Your task to perform on an android device: turn off priority inbox in the gmail app Image 0: 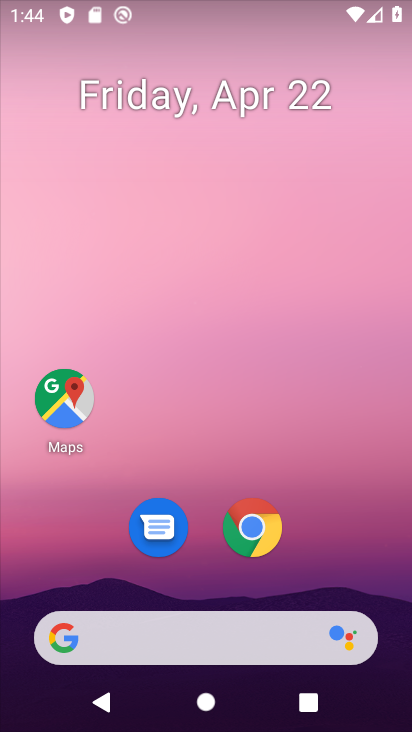
Step 0: drag from (350, 581) to (327, 188)
Your task to perform on an android device: turn off priority inbox in the gmail app Image 1: 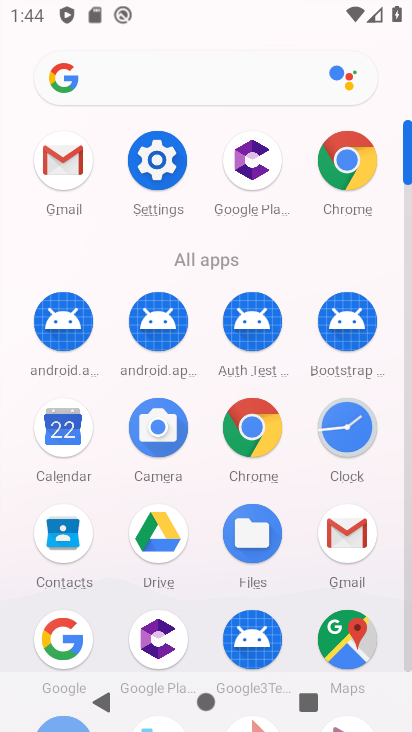
Step 1: click (344, 538)
Your task to perform on an android device: turn off priority inbox in the gmail app Image 2: 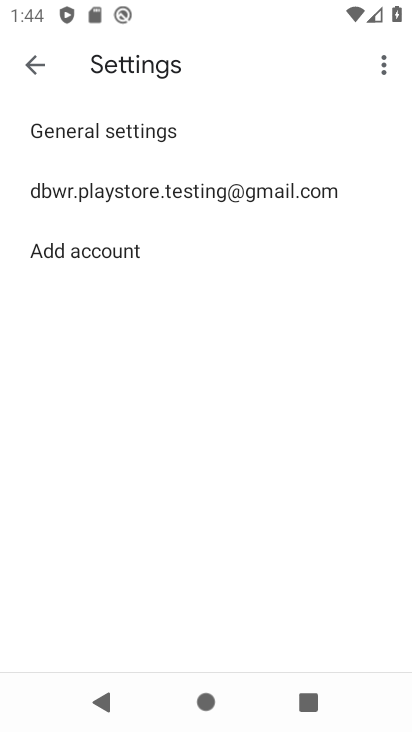
Step 2: click (146, 190)
Your task to perform on an android device: turn off priority inbox in the gmail app Image 3: 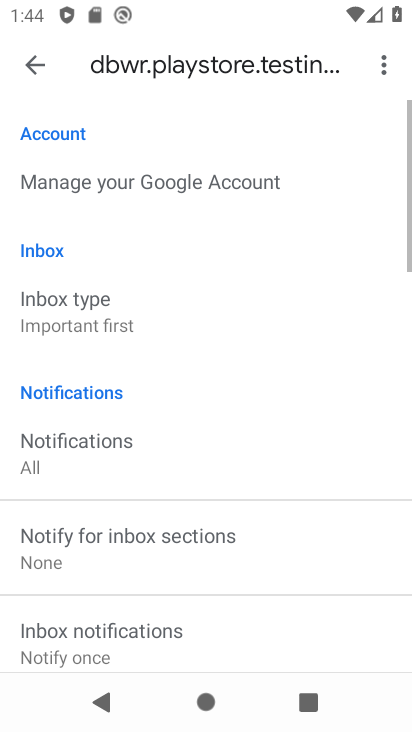
Step 3: click (106, 310)
Your task to perform on an android device: turn off priority inbox in the gmail app Image 4: 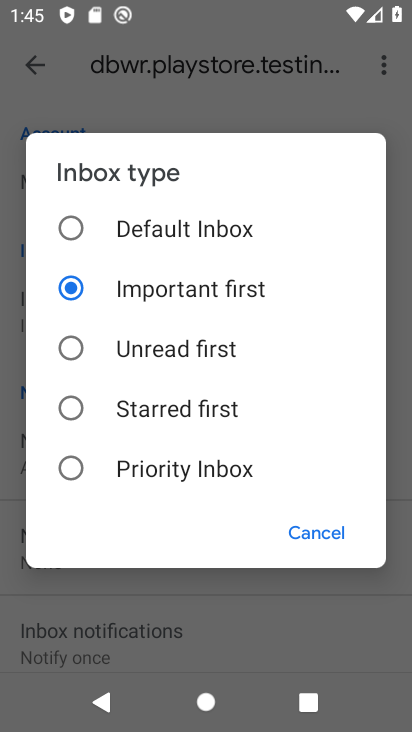
Step 4: task complete